Your task to perform on an android device: turn off location Image 0: 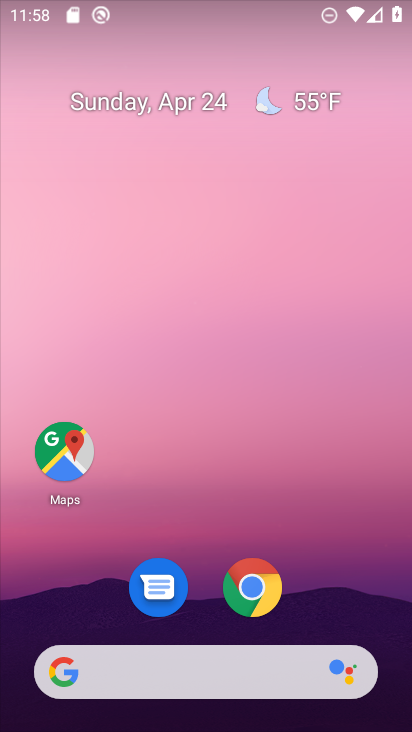
Step 0: drag from (348, 590) to (323, 61)
Your task to perform on an android device: turn off location Image 1: 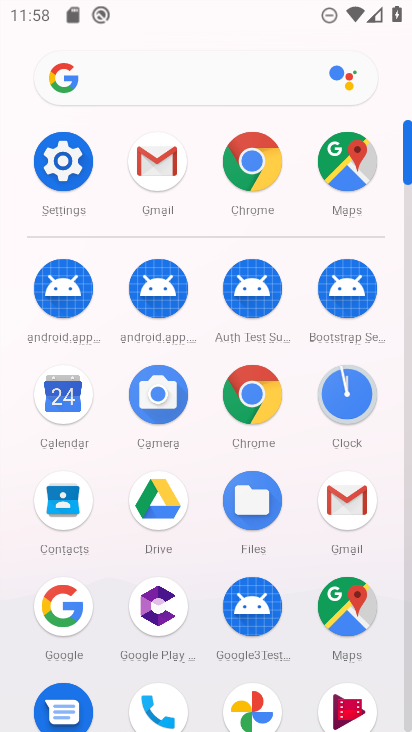
Step 1: click (52, 177)
Your task to perform on an android device: turn off location Image 2: 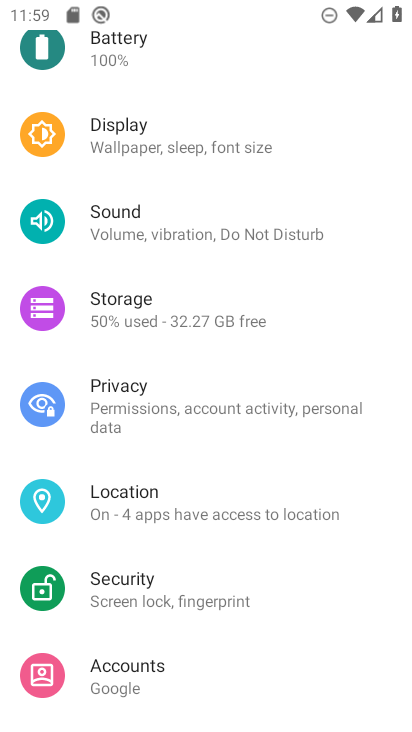
Step 2: click (165, 522)
Your task to perform on an android device: turn off location Image 3: 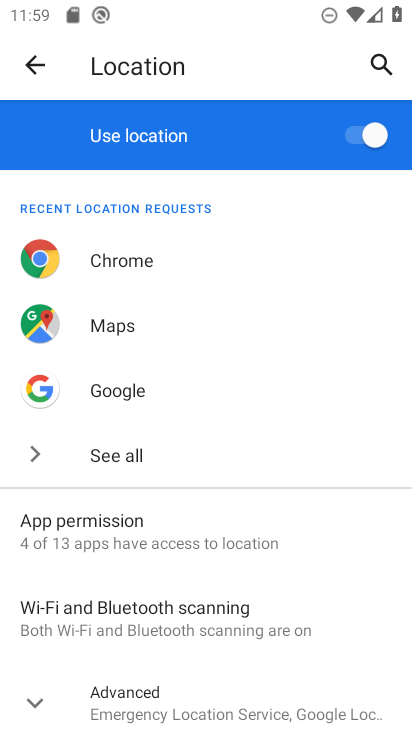
Step 3: click (341, 143)
Your task to perform on an android device: turn off location Image 4: 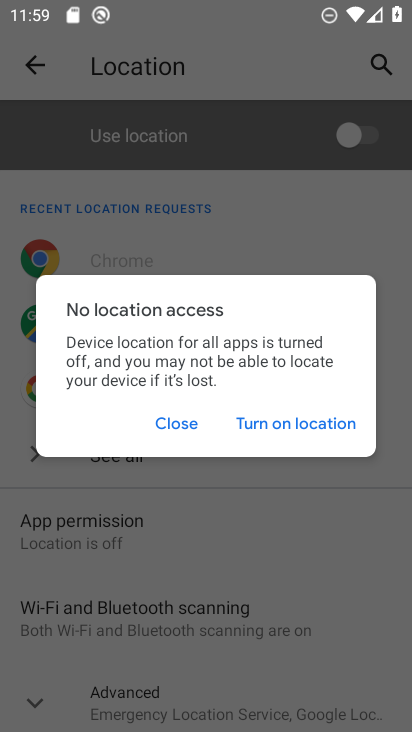
Step 4: click (176, 433)
Your task to perform on an android device: turn off location Image 5: 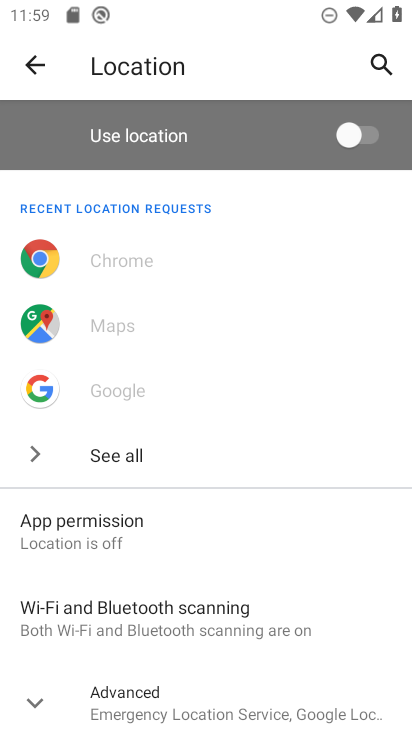
Step 5: task complete